Your task to perform on an android device: What's the weather today? Image 0: 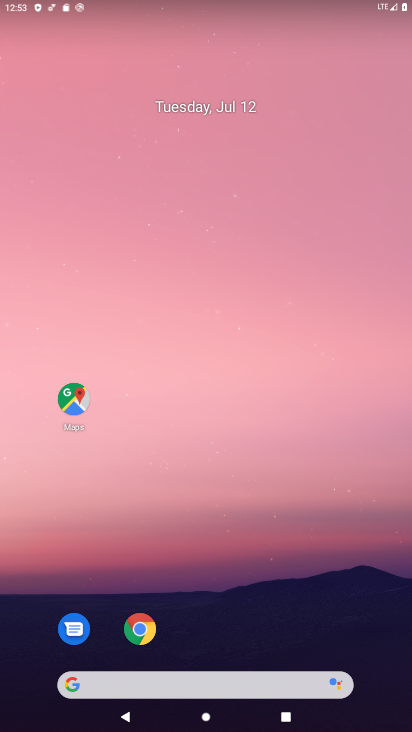
Step 0: drag from (277, 683) to (377, 2)
Your task to perform on an android device: What's the weather today? Image 1: 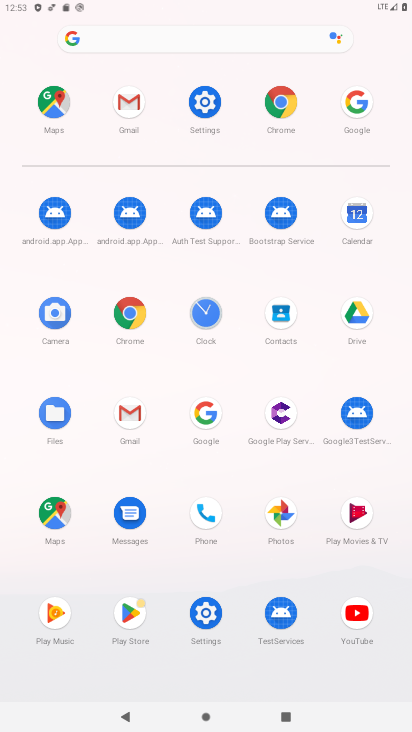
Step 1: click (119, 310)
Your task to perform on an android device: What's the weather today? Image 2: 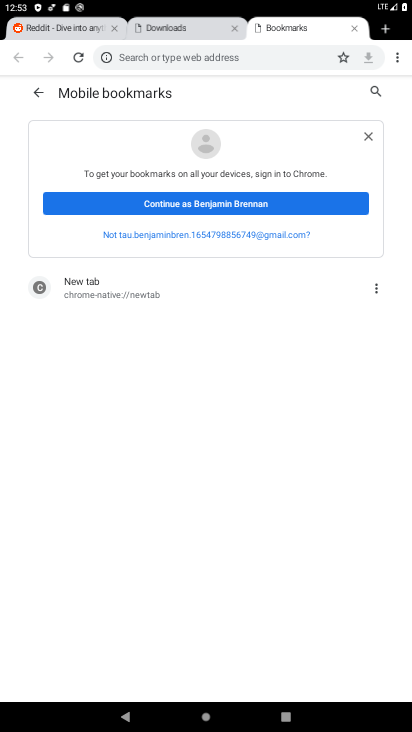
Step 2: click (255, 51)
Your task to perform on an android device: What's the weather today? Image 3: 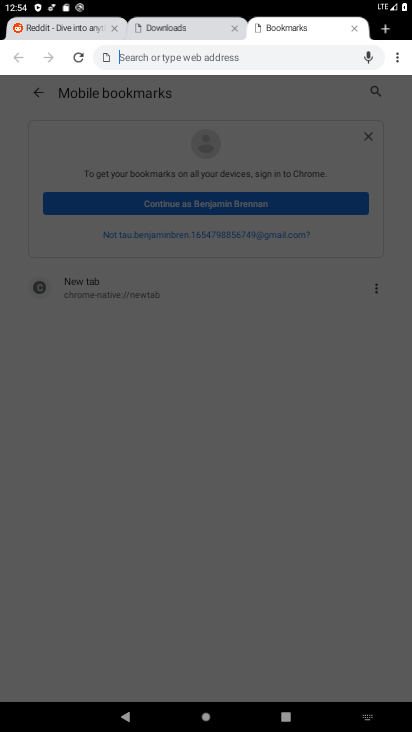
Step 3: type "weather today"
Your task to perform on an android device: What's the weather today? Image 4: 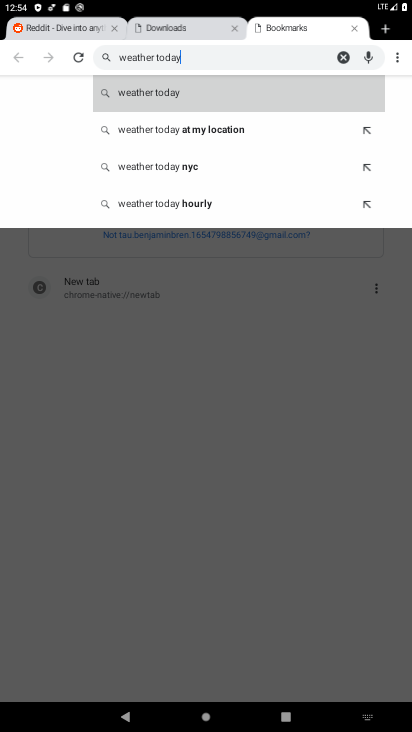
Step 4: click (202, 94)
Your task to perform on an android device: What's the weather today? Image 5: 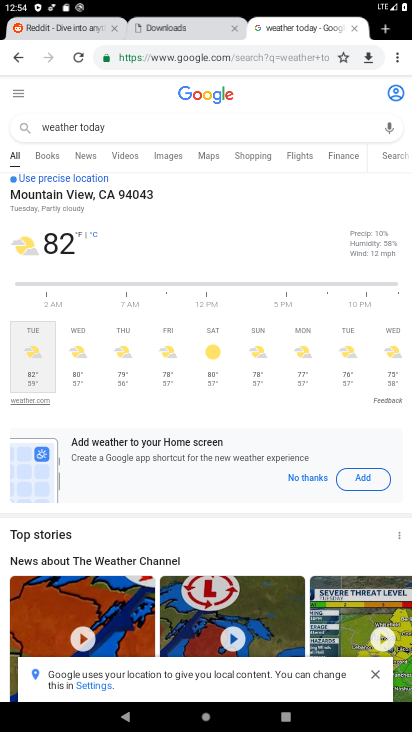
Step 5: task complete